Your task to perform on an android device: Clear all items from cart on bestbuy.com. Add macbook air to the cart on bestbuy.com, then select checkout. Image 0: 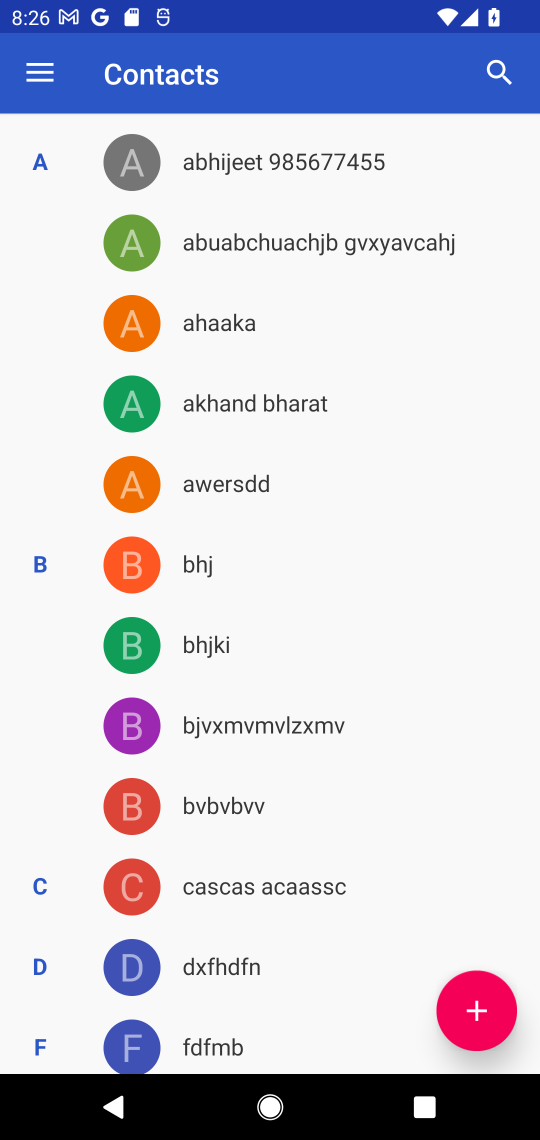
Step 0: press home button
Your task to perform on an android device: Clear all items from cart on bestbuy.com. Add macbook air to the cart on bestbuy.com, then select checkout. Image 1: 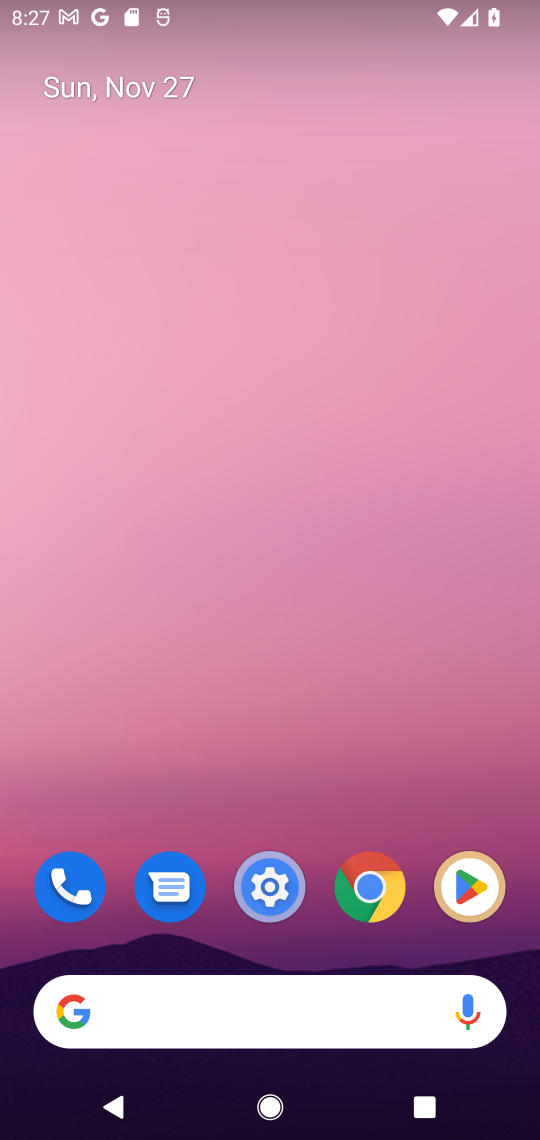
Step 1: click (214, 1031)
Your task to perform on an android device: Clear all items from cart on bestbuy.com. Add macbook air to the cart on bestbuy.com, then select checkout. Image 2: 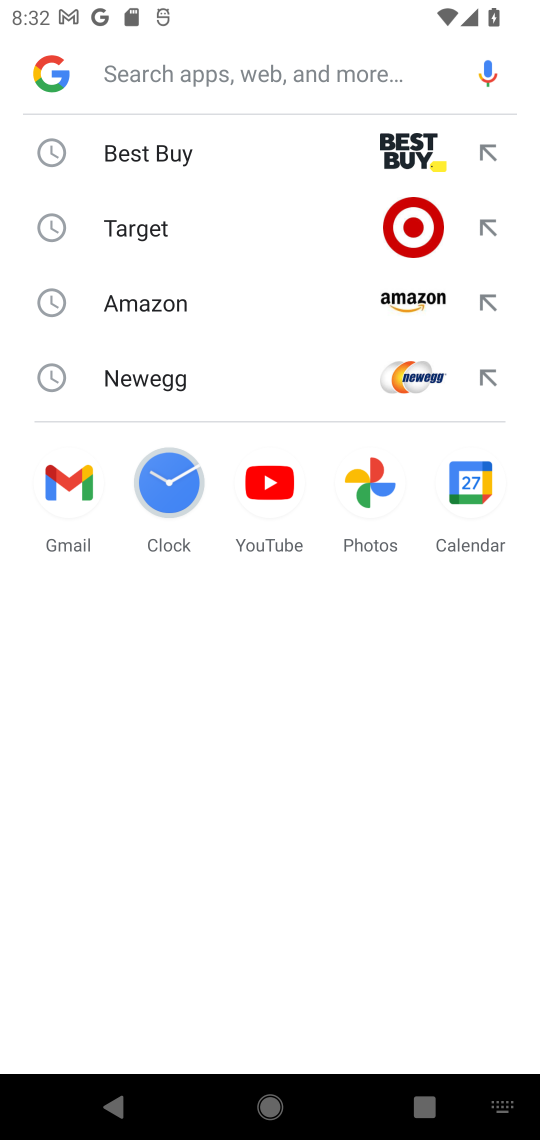
Step 2: click (182, 145)
Your task to perform on an android device: Clear all items from cart on bestbuy.com. Add macbook air to the cart on bestbuy.com, then select checkout. Image 3: 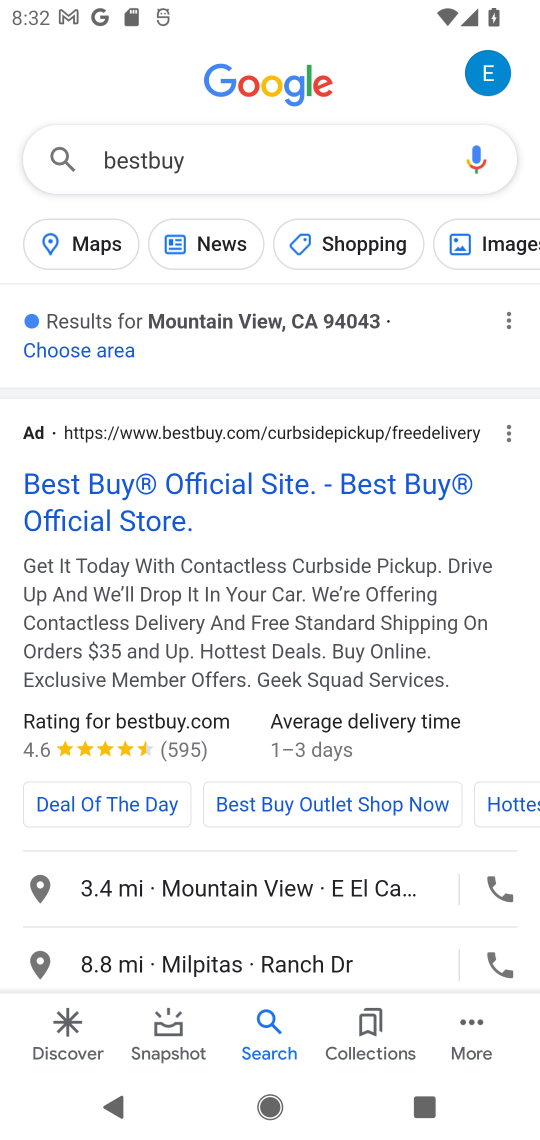
Step 3: click (294, 515)
Your task to perform on an android device: Clear all items from cart on bestbuy.com. Add macbook air to the cart on bestbuy.com, then select checkout. Image 4: 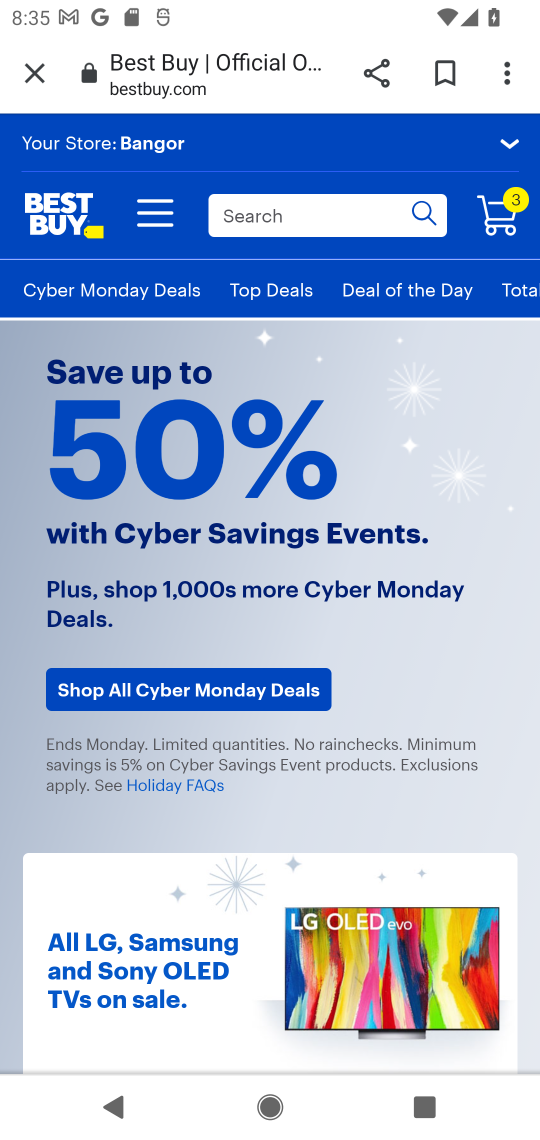
Step 4: click (263, 238)
Your task to perform on an android device: Clear all items from cart on bestbuy.com. Add macbook air to the cart on bestbuy.com, then select checkout. Image 5: 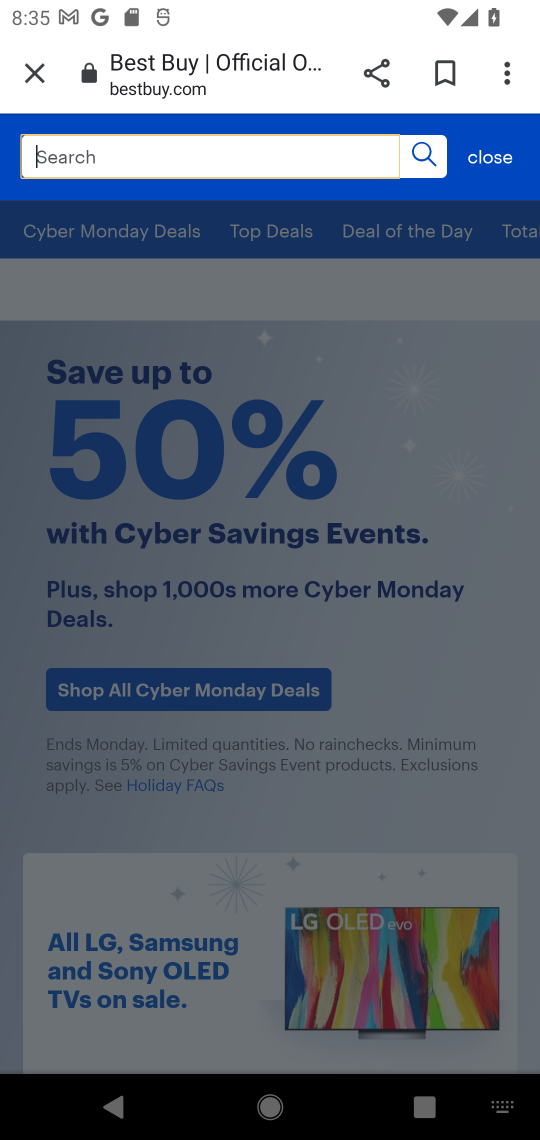
Step 5: click (263, 231)
Your task to perform on an android device: Clear all items from cart on bestbuy.com. Add macbook air to the cart on bestbuy.com, then select checkout. Image 6: 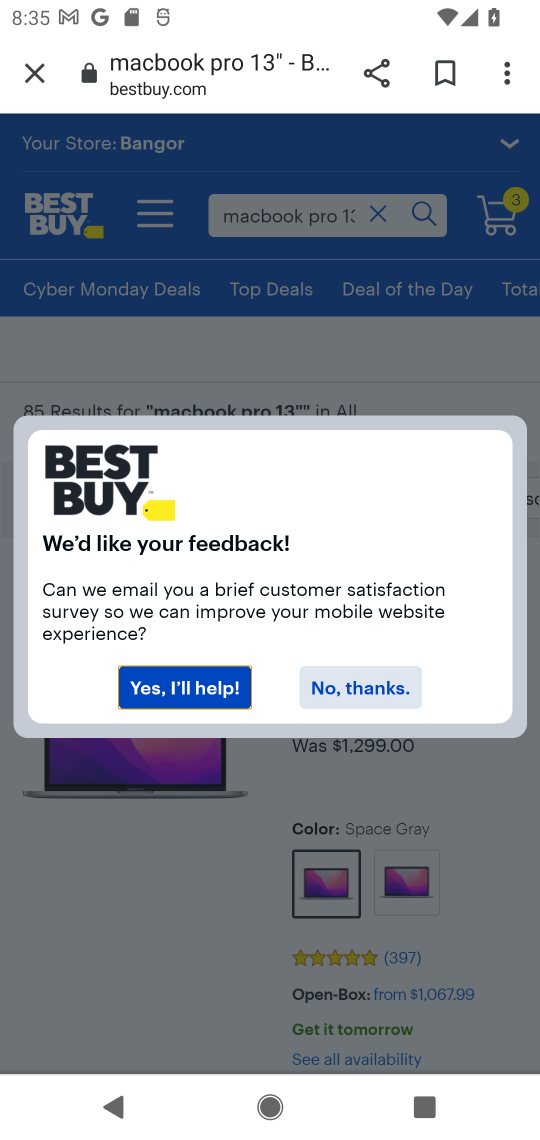
Step 6: type "macbook air"
Your task to perform on an android device: Clear all items from cart on bestbuy.com. Add macbook air to the cart on bestbuy.com, then select checkout. Image 7: 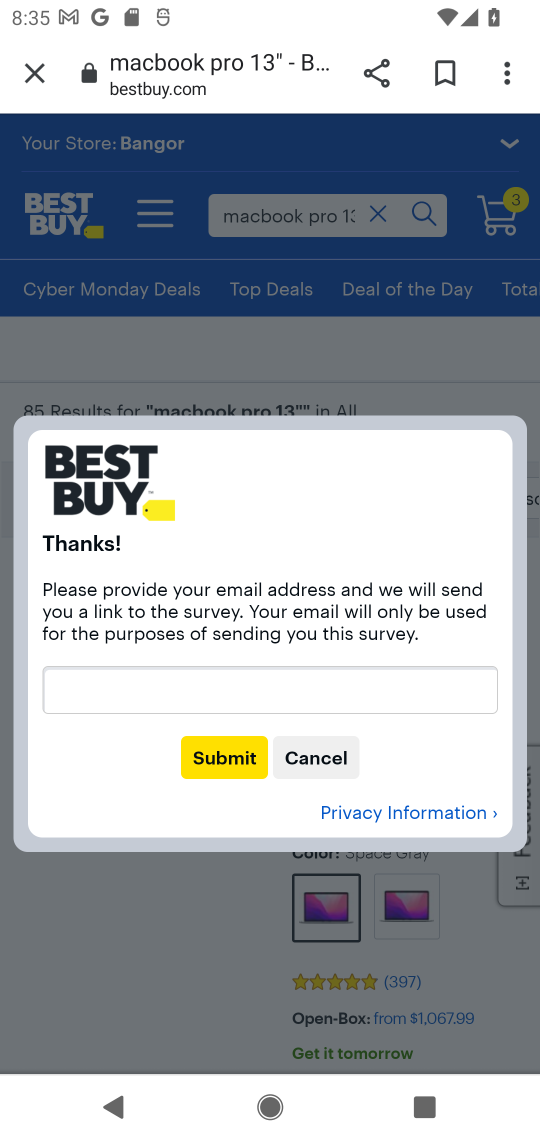
Step 7: click (330, 756)
Your task to perform on an android device: Clear all items from cart on bestbuy.com. Add macbook air to the cart on bestbuy.com, then select checkout. Image 8: 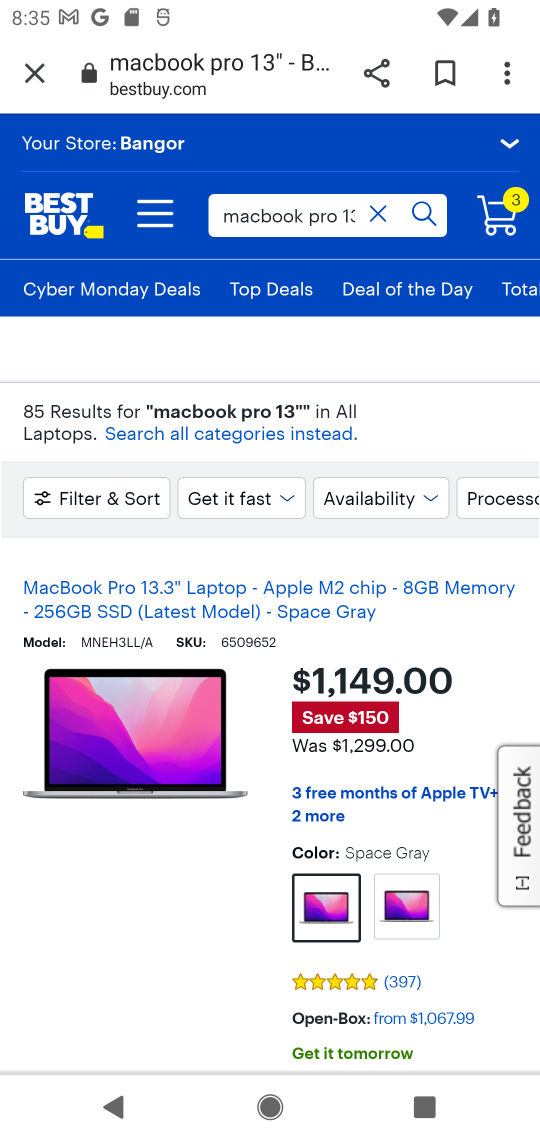
Step 8: type "macbook air"
Your task to perform on an android device: Clear all items from cart on bestbuy.com. Add macbook air to the cart on bestbuy.com, then select checkout. Image 9: 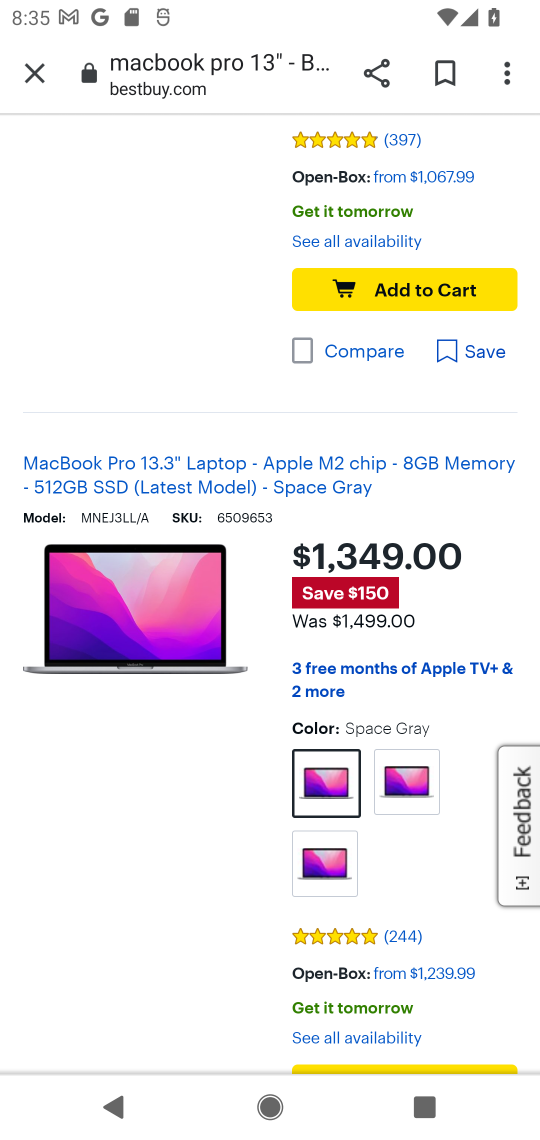
Step 9: click (371, 303)
Your task to perform on an android device: Clear all items from cart on bestbuy.com. Add macbook air to the cart on bestbuy.com, then select checkout. Image 10: 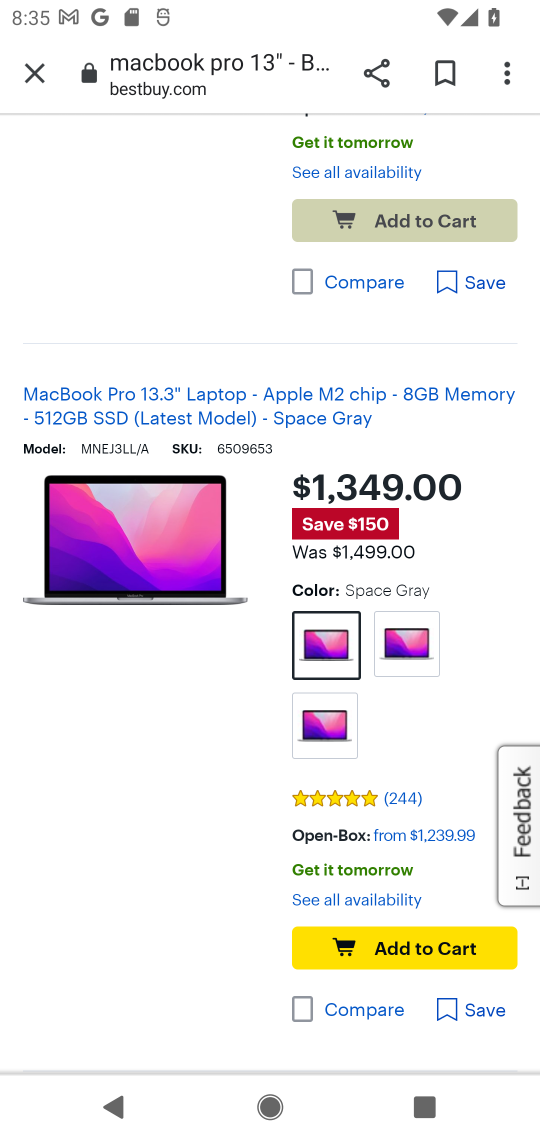
Step 10: task complete